Your task to perform on an android device: turn on priority inbox in the gmail app Image 0: 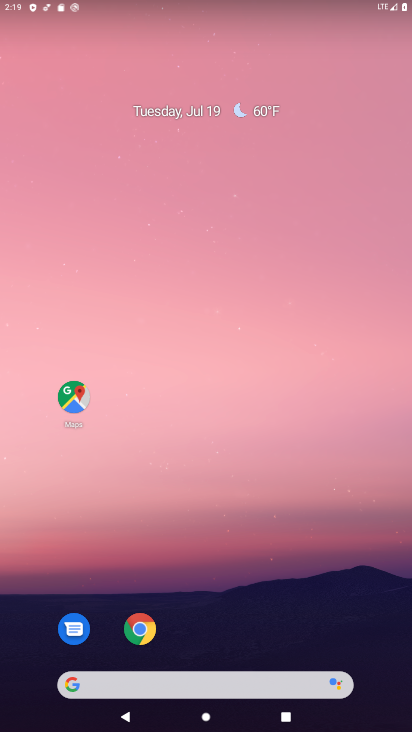
Step 0: drag from (206, 619) to (191, 206)
Your task to perform on an android device: turn on priority inbox in the gmail app Image 1: 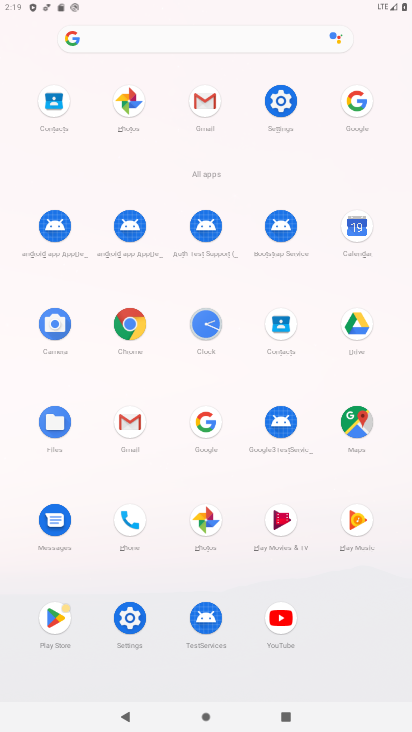
Step 1: click (210, 101)
Your task to perform on an android device: turn on priority inbox in the gmail app Image 2: 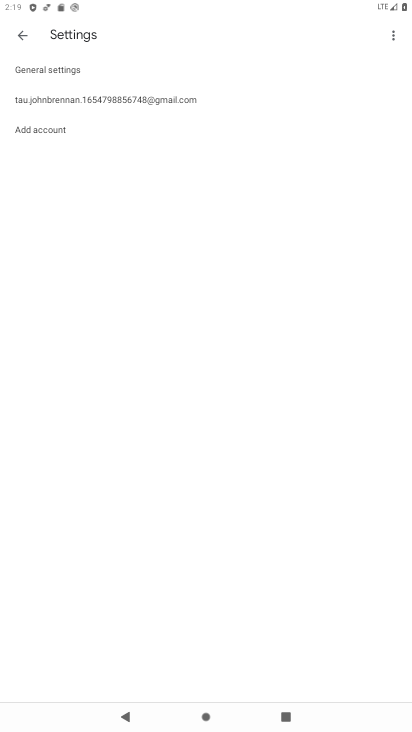
Step 2: click (76, 97)
Your task to perform on an android device: turn on priority inbox in the gmail app Image 3: 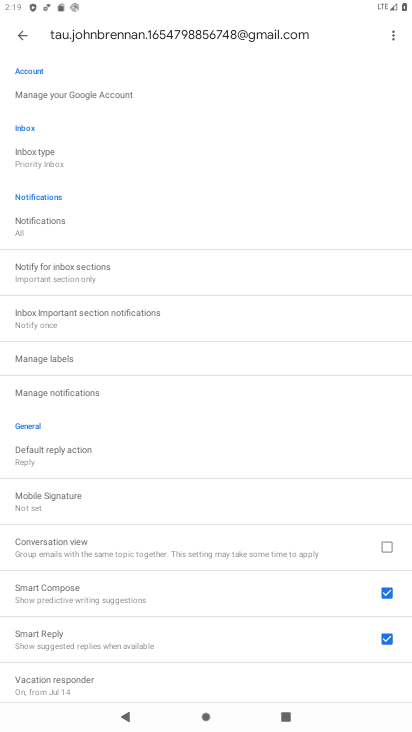
Step 3: click (76, 150)
Your task to perform on an android device: turn on priority inbox in the gmail app Image 4: 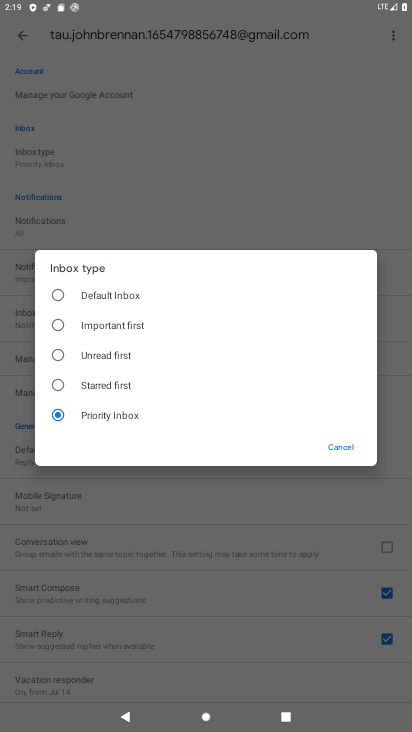
Step 4: task complete